Your task to perform on an android device: Show me productivity apps on the Play Store Image 0: 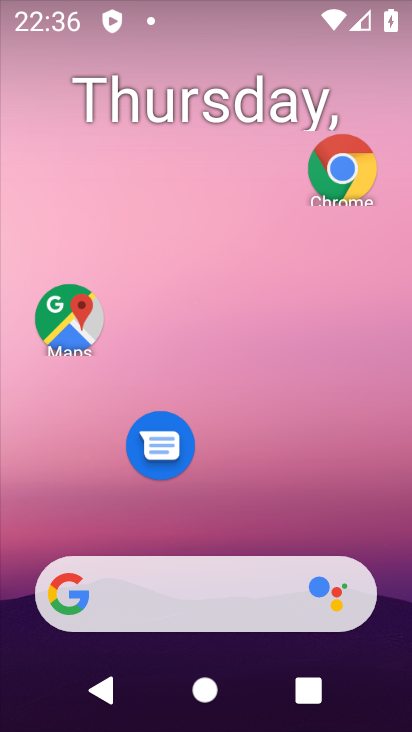
Step 0: drag from (244, 451) to (13, 271)
Your task to perform on an android device: Show me productivity apps on the Play Store Image 1: 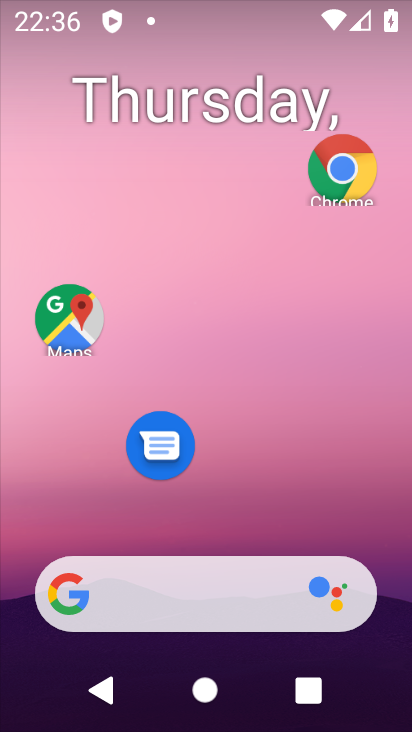
Step 1: drag from (225, 493) to (109, 22)
Your task to perform on an android device: Show me productivity apps on the Play Store Image 2: 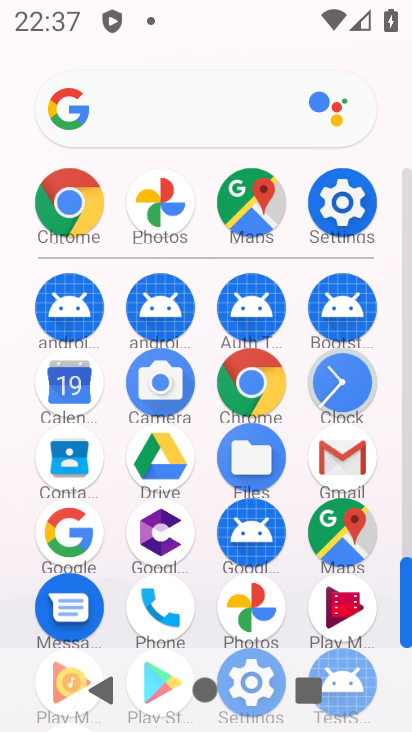
Step 2: drag from (203, 595) to (221, 25)
Your task to perform on an android device: Show me productivity apps on the Play Store Image 3: 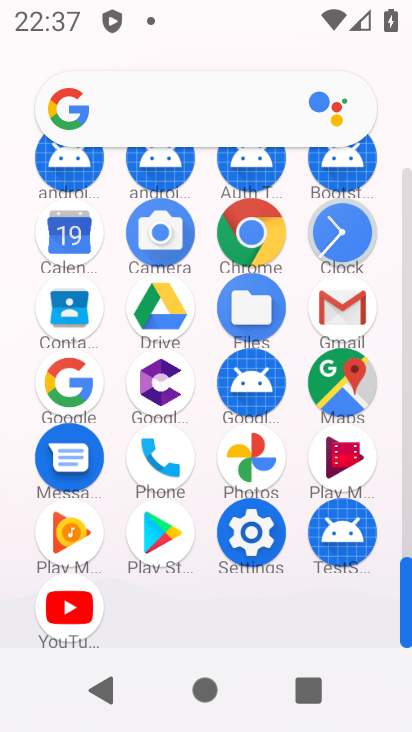
Step 3: click (150, 522)
Your task to perform on an android device: Show me productivity apps on the Play Store Image 4: 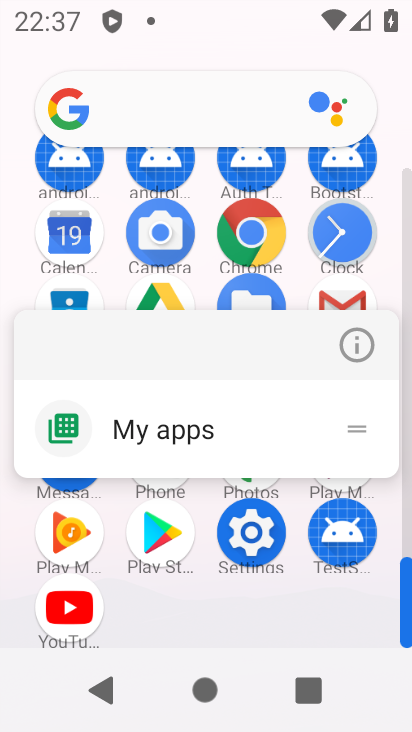
Step 4: click (354, 345)
Your task to perform on an android device: Show me productivity apps on the Play Store Image 5: 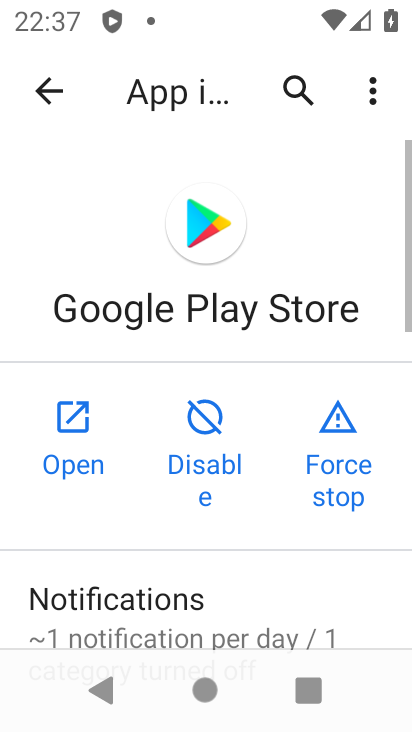
Step 5: click (74, 416)
Your task to perform on an android device: Show me productivity apps on the Play Store Image 6: 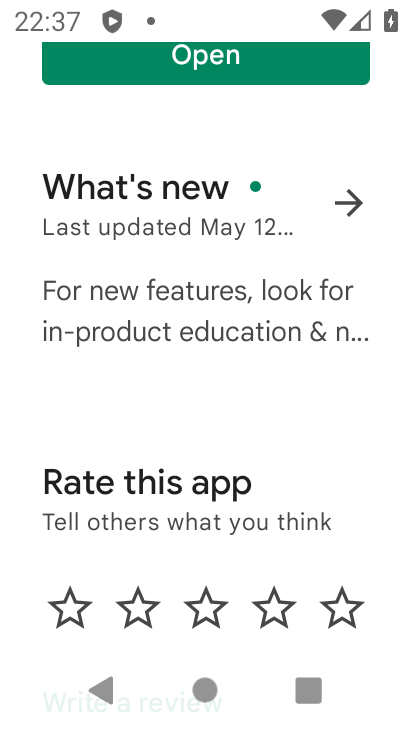
Step 6: drag from (237, 213) to (321, 726)
Your task to perform on an android device: Show me productivity apps on the Play Store Image 7: 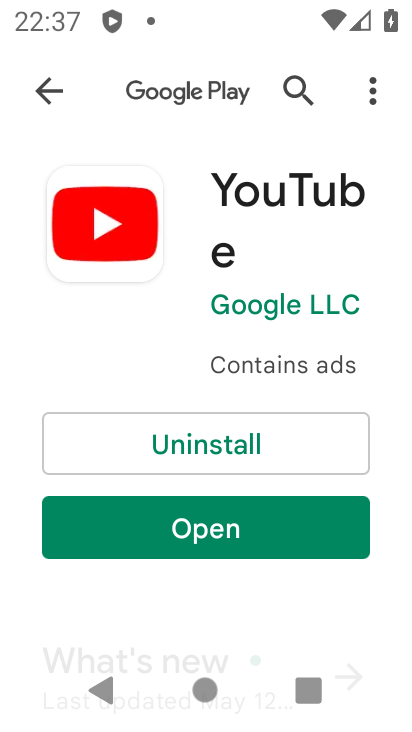
Step 7: press back button
Your task to perform on an android device: Show me productivity apps on the Play Store Image 8: 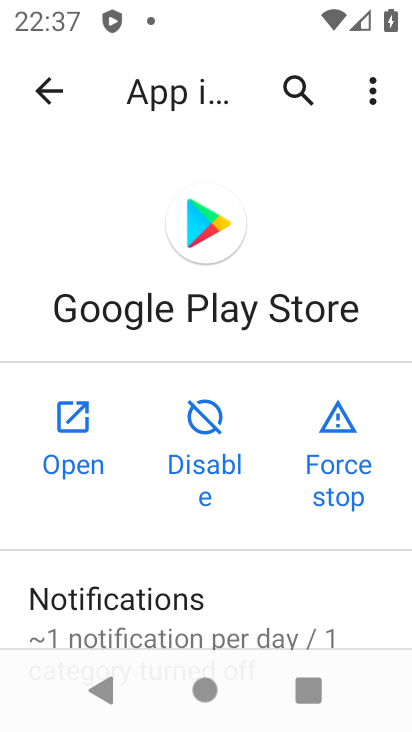
Step 8: press home button
Your task to perform on an android device: Show me productivity apps on the Play Store Image 9: 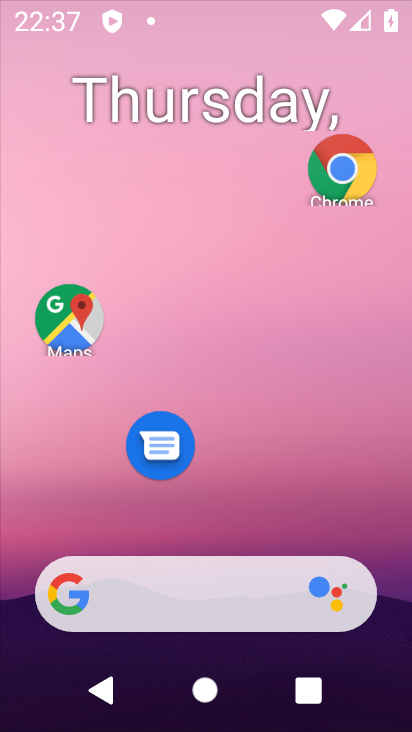
Step 9: drag from (249, 550) to (273, 275)
Your task to perform on an android device: Show me productivity apps on the Play Store Image 10: 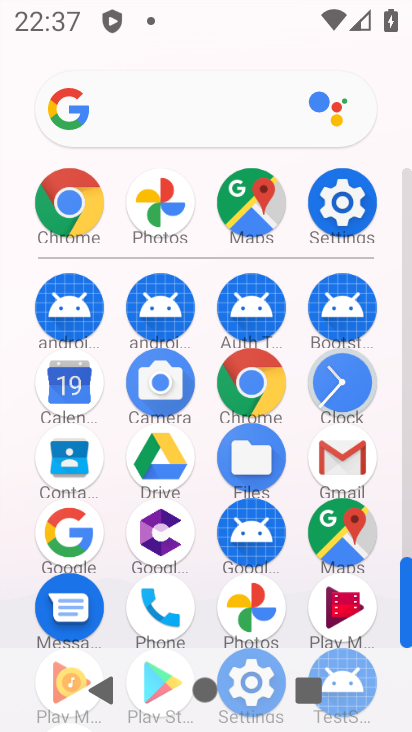
Step 10: drag from (192, 643) to (219, 443)
Your task to perform on an android device: Show me productivity apps on the Play Store Image 11: 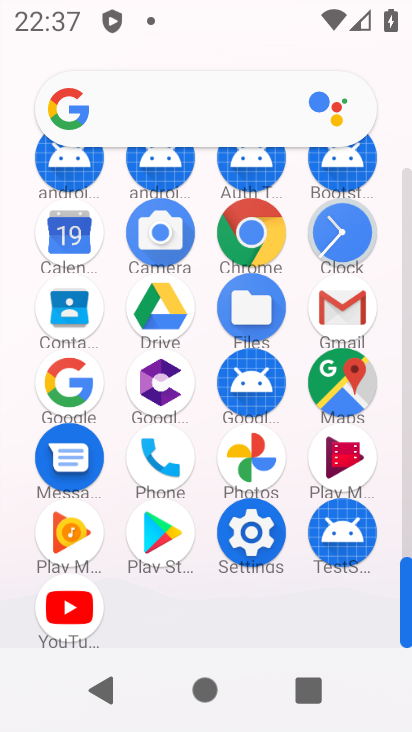
Step 11: click (148, 522)
Your task to perform on an android device: Show me productivity apps on the Play Store Image 12: 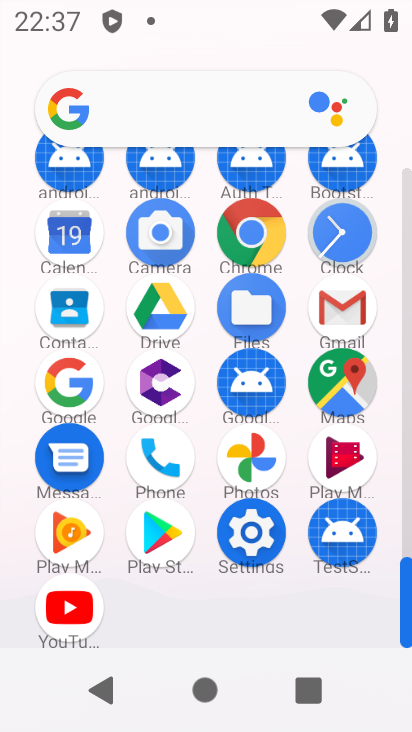
Step 12: click (147, 521)
Your task to perform on an android device: Show me productivity apps on the Play Store Image 13: 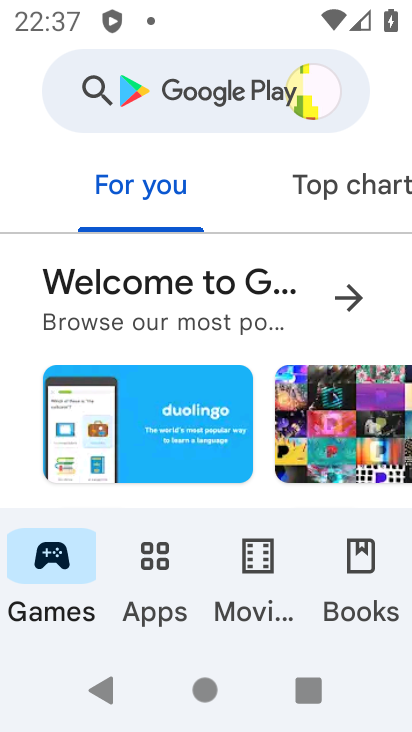
Step 13: drag from (160, 499) to (359, 5)
Your task to perform on an android device: Show me productivity apps on the Play Store Image 14: 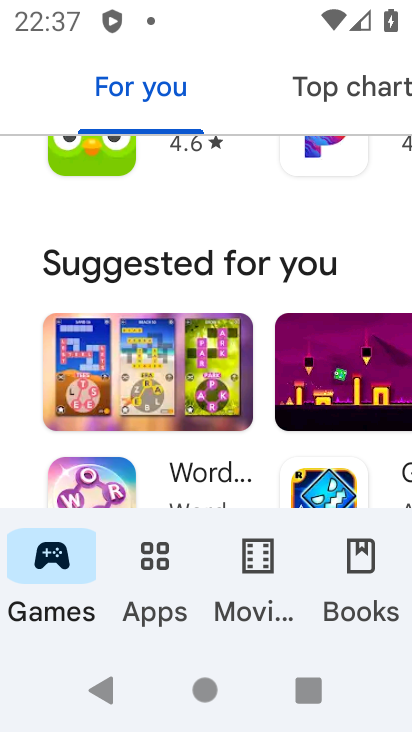
Step 14: click (145, 549)
Your task to perform on an android device: Show me productivity apps on the Play Store Image 15: 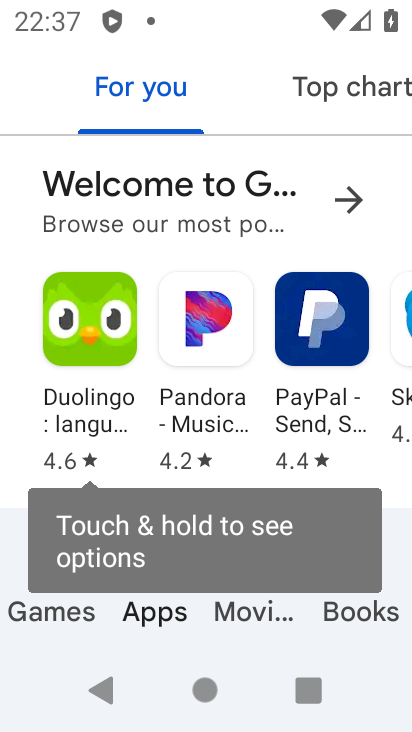
Step 15: task complete